Your task to perform on an android device: move a message to another label in the gmail app Image 0: 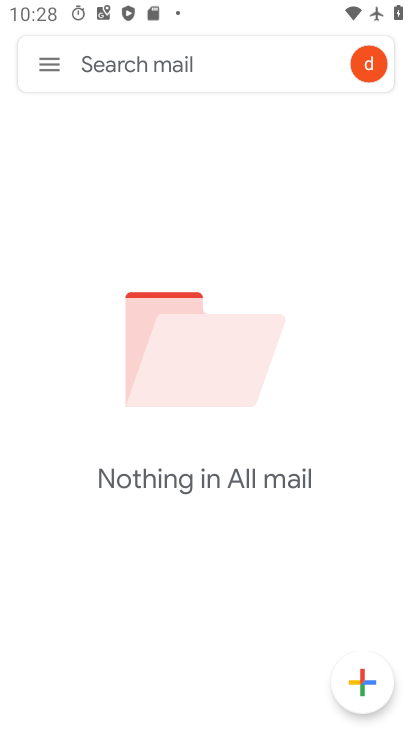
Step 0: click (57, 69)
Your task to perform on an android device: move a message to another label in the gmail app Image 1: 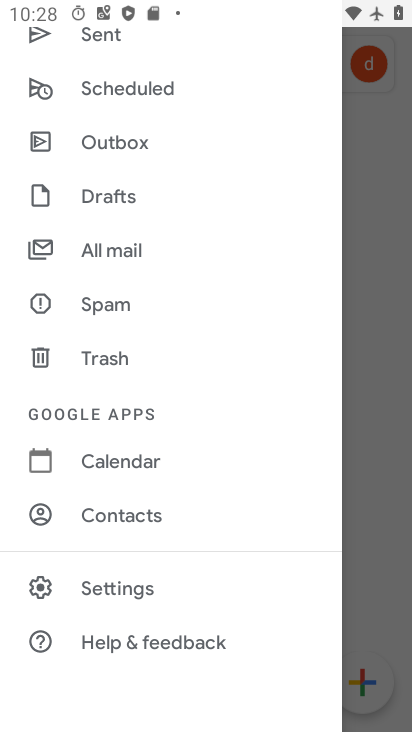
Step 1: drag from (206, 519) to (187, 148)
Your task to perform on an android device: move a message to another label in the gmail app Image 2: 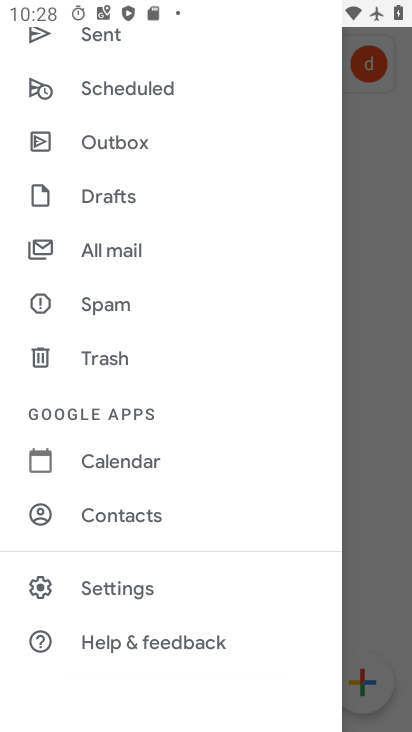
Step 2: drag from (193, 160) to (202, 625)
Your task to perform on an android device: move a message to another label in the gmail app Image 3: 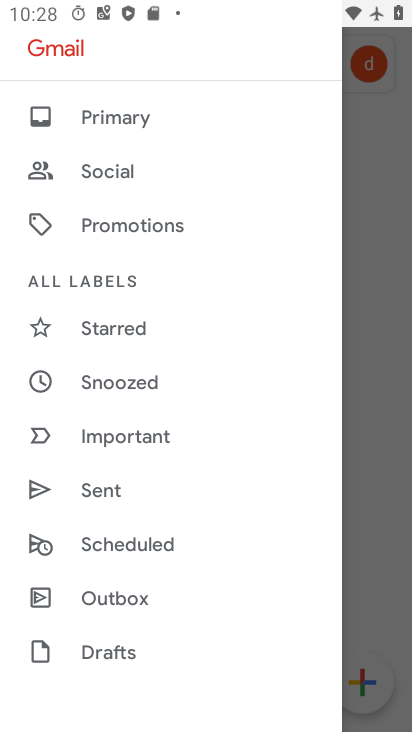
Step 3: drag from (192, 638) to (179, 326)
Your task to perform on an android device: move a message to another label in the gmail app Image 4: 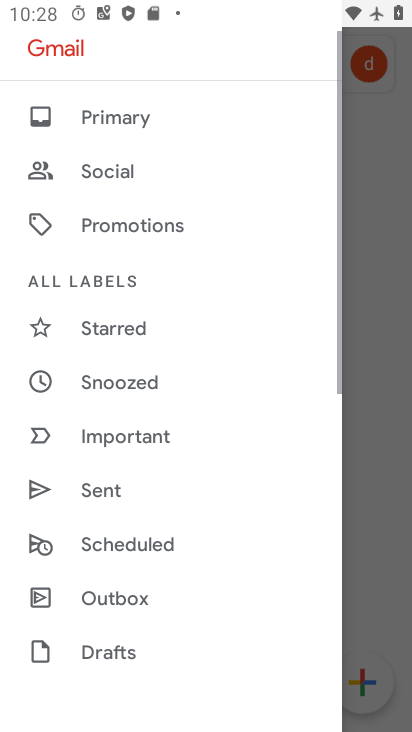
Step 4: drag from (136, 597) to (153, 279)
Your task to perform on an android device: move a message to another label in the gmail app Image 5: 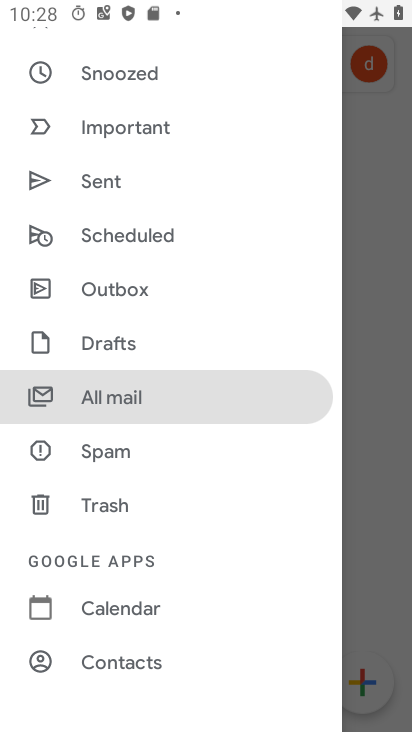
Step 5: click (115, 505)
Your task to perform on an android device: move a message to another label in the gmail app Image 6: 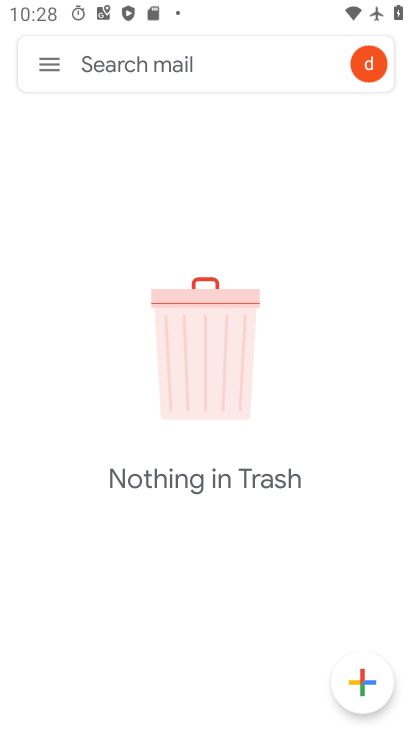
Step 6: click (26, 69)
Your task to perform on an android device: move a message to another label in the gmail app Image 7: 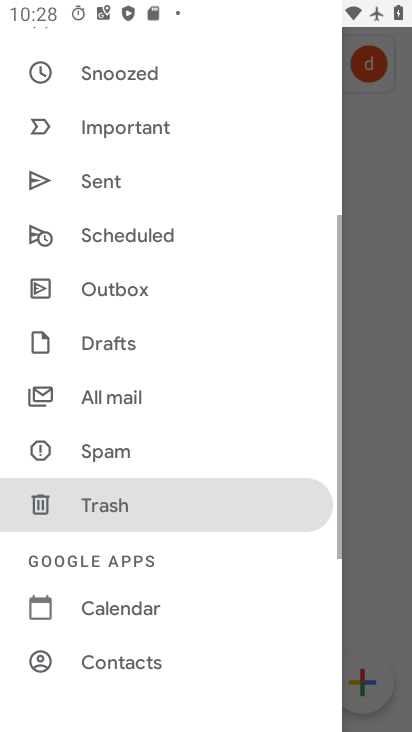
Step 7: drag from (184, 173) to (228, 656)
Your task to perform on an android device: move a message to another label in the gmail app Image 8: 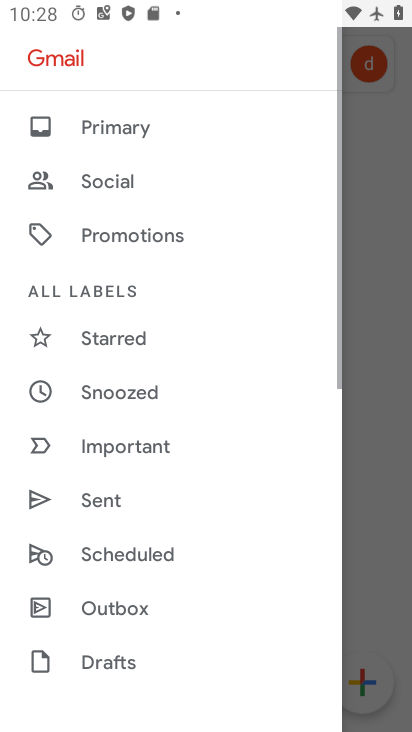
Step 8: click (147, 121)
Your task to perform on an android device: move a message to another label in the gmail app Image 9: 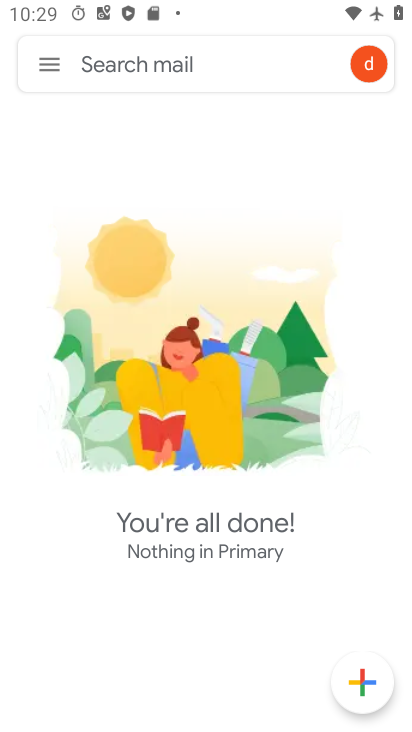
Step 9: task complete